Your task to perform on an android device: change notifications settings Image 0: 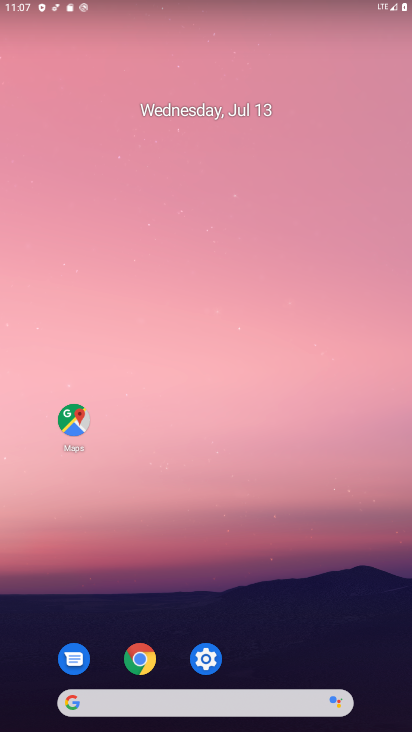
Step 0: drag from (249, 564) to (193, 157)
Your task to perform on an android device: change notifications settings Image 1: 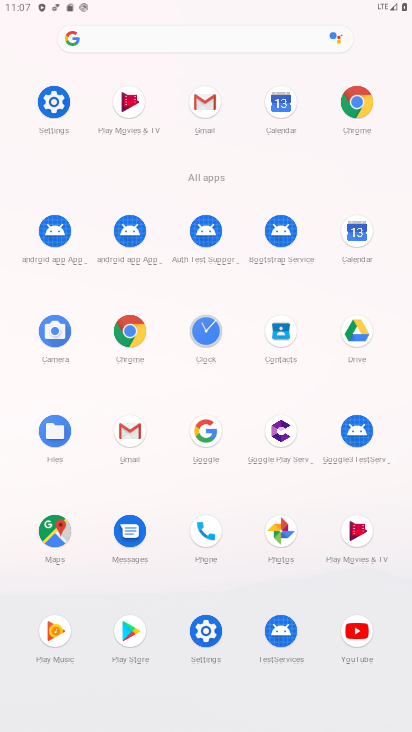
Step 1: click (51, 104)
Your task to perform on an android device: change notifications settings Image 2: 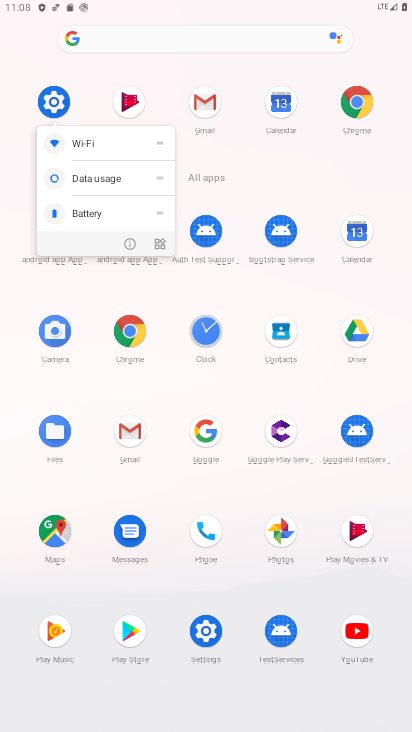
Step 2: click (55, 98)
Your task to perform on an android device: change notifications settings Image 3: 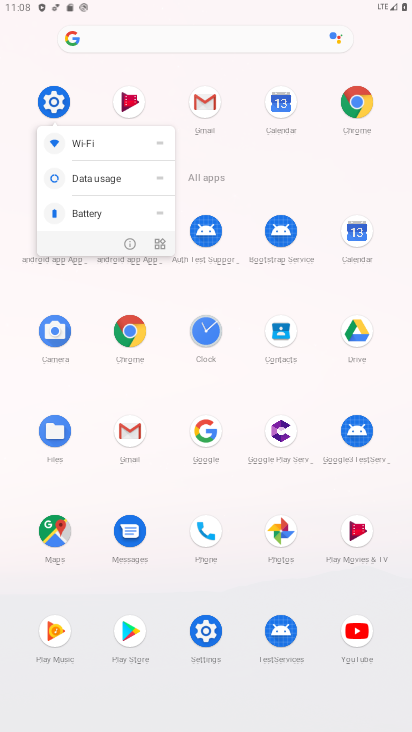
Step 3: click (198, 637)
Your task to perform on an android device: change notifications settings Image 4: 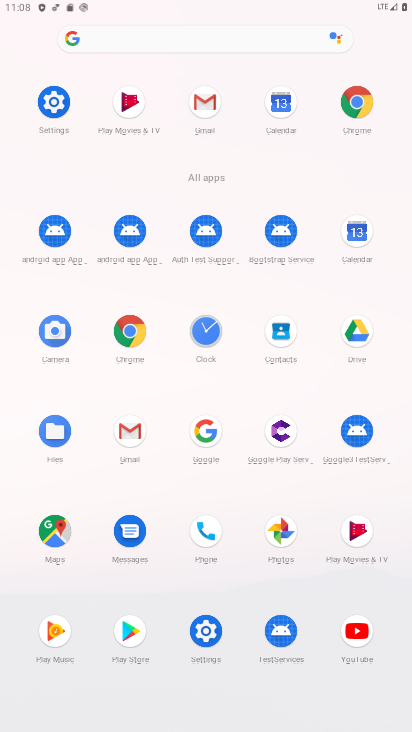
Step 4: click (199, 635)
Your task to perform on an android device: change notifications settings Image 5: 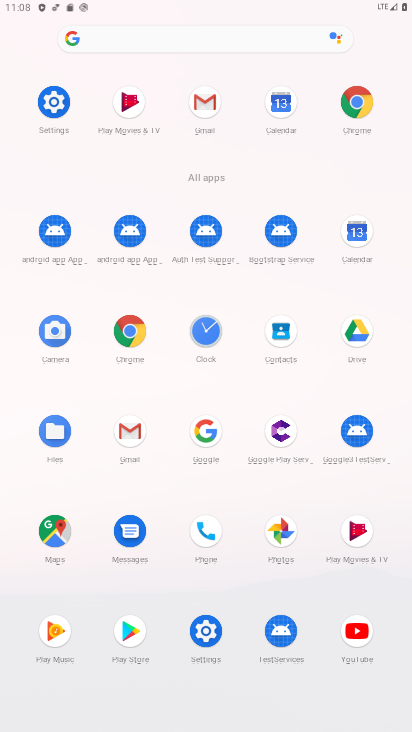
Step 5: click (199, 635)
Your task to perform on an android device: change notifications settings Image 6: 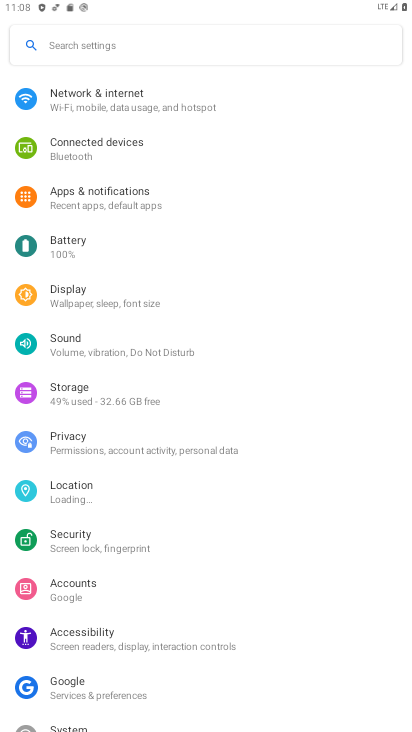
Step 6: click (202, 637)
Your task to perform on an android device: change notifications settings Image 7: 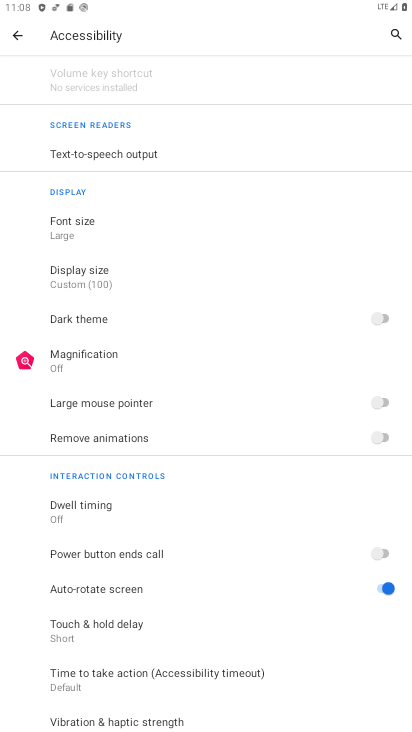
Step 7: click (17, 35)
Your task to perform on an android device: change notifications settings Image 8: 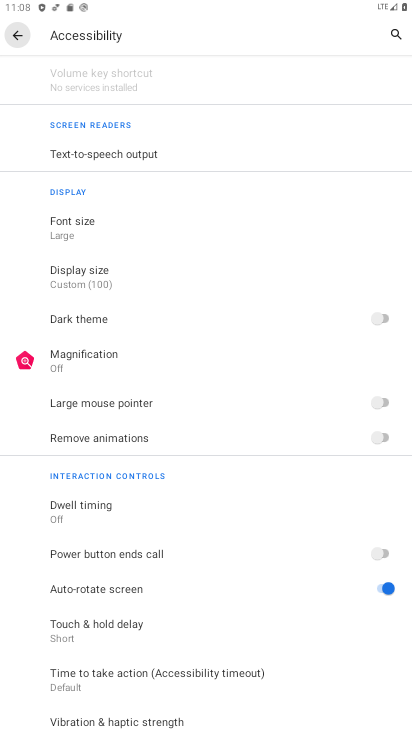
Step 8: click (16, 34)
Your task to perform on an android device: change notifications settings Image 9: 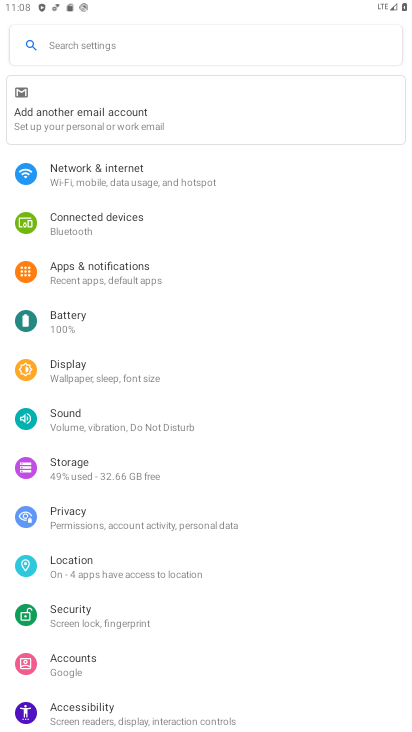
Step 9: click (101, 263)
Your task to perform on an android device: change notifications settings Image 10: 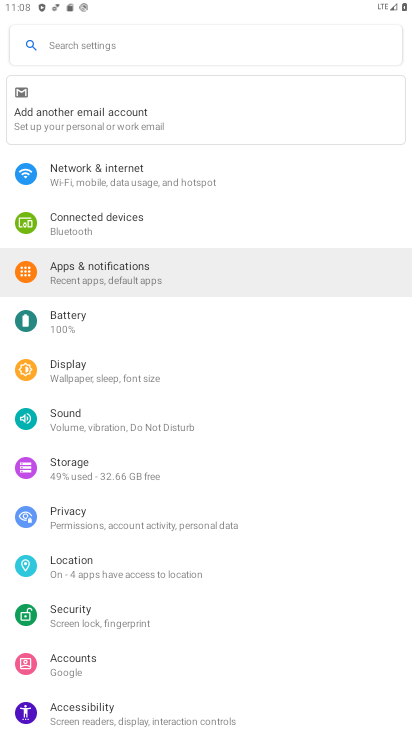
Step 10: click (104, 267)
Your task to perform on an android device: change notifications settings Image 11: 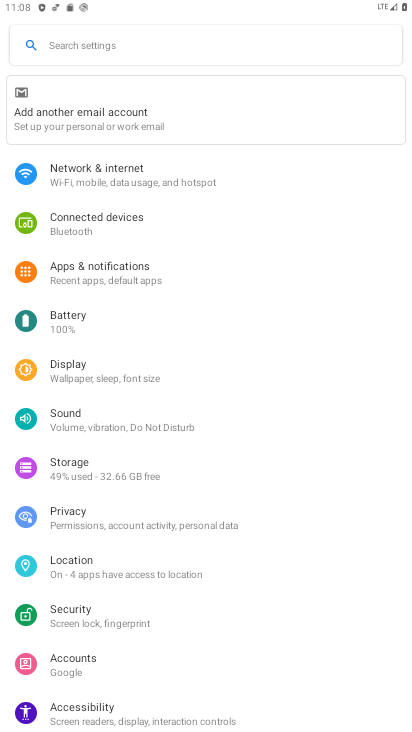
Step 11: click (104, 267)
Your task to perform on an android device: change notifications settings Image 12: 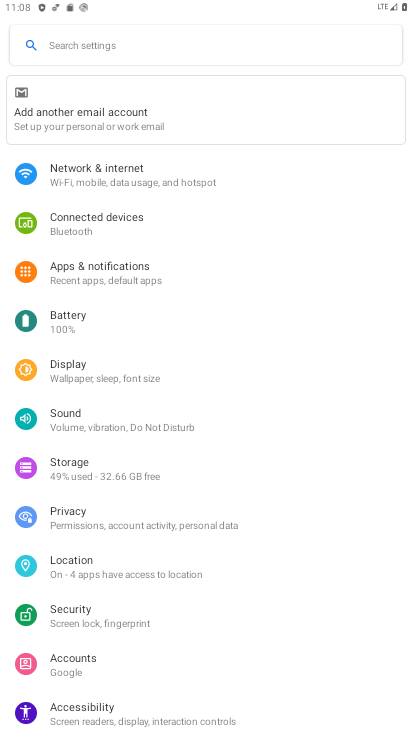
Step 12: click (105, 268)
Your task to perform on an android device: change notifications settings Image 13: 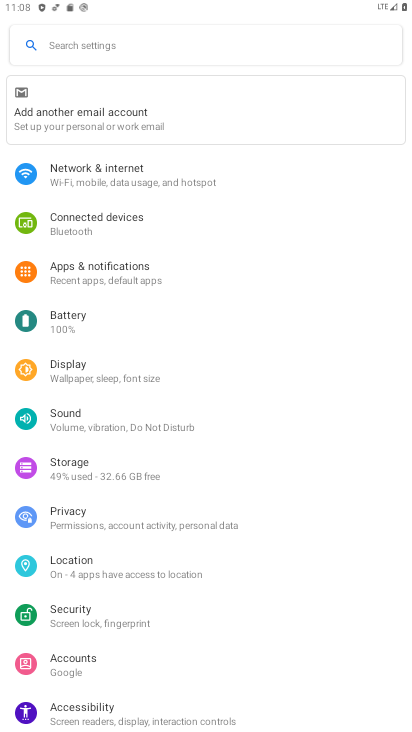
Step 13: click (105, 269)
Your task to perform on an android device: change notifications settings Image 14: 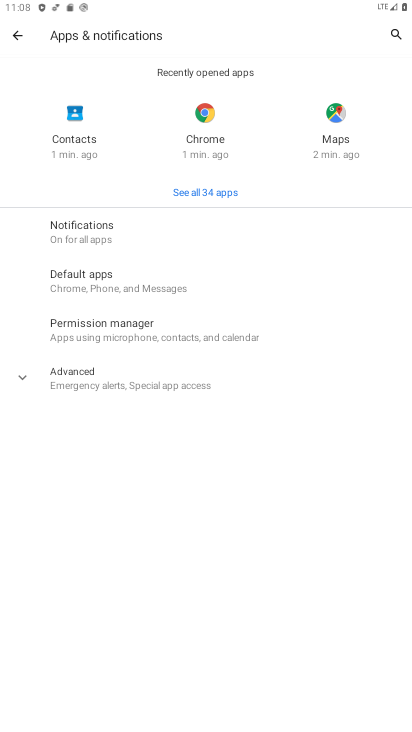
Step 14: task complete